Your task to perform on an android device: toggle airplane mode Image 0: 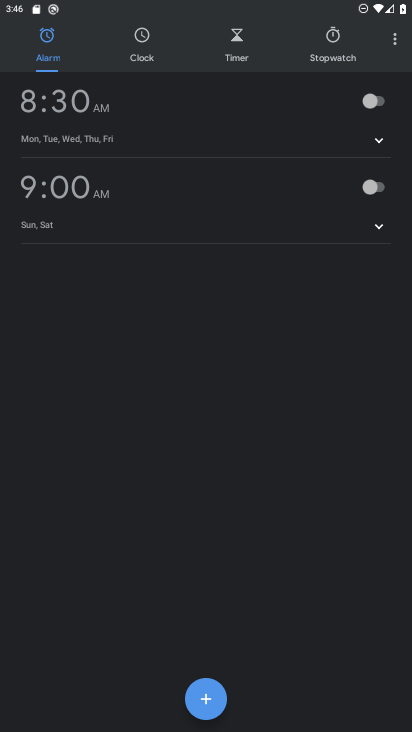
Step 0: press home button
Your task to perform on an android device: toggle airplane mode Image 1: 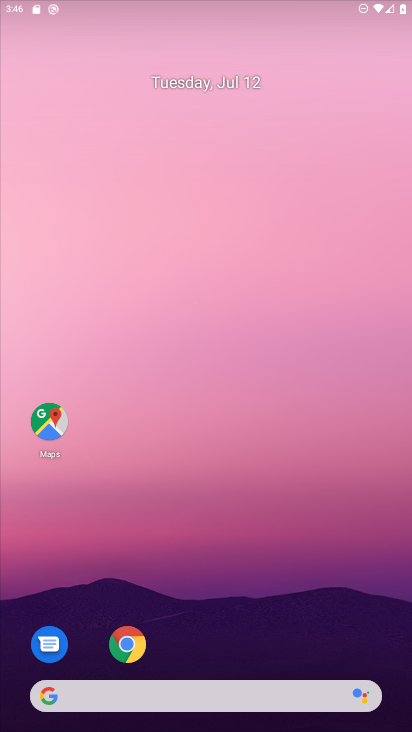
Step 1: drag from (276, 548) to (159, 47)
Your task to perform on an android device: toggle airplane mode Image 2: 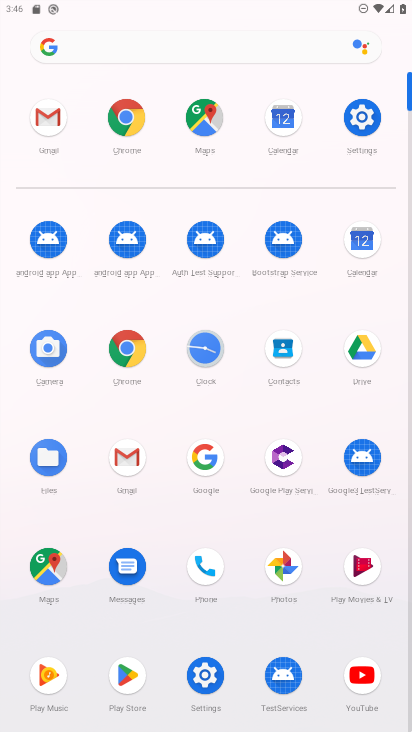
Step 2: click (368, 116)
Your task to perform on an android device: toggle airplane mode Image 3: 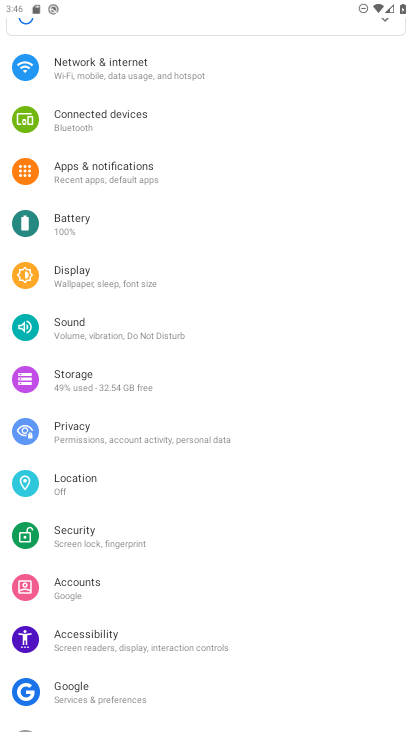
Step 3: click (111, 78)
Your task to perform on an android device: toggle airplane mode Image 4: 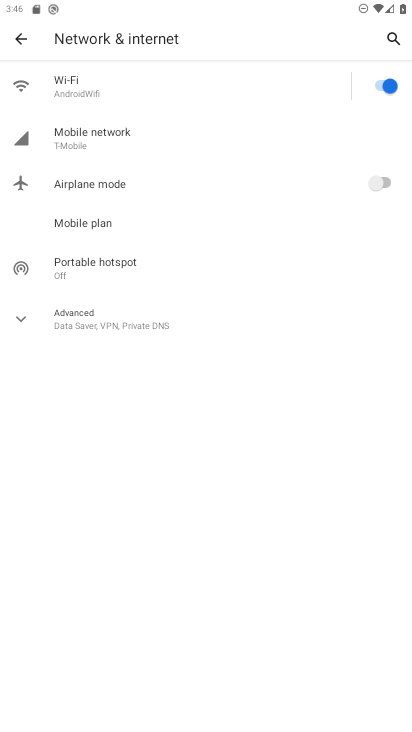
Step 4: click (381, 184)
Your task to perform on an android device: toggle airplane mode Image 5: 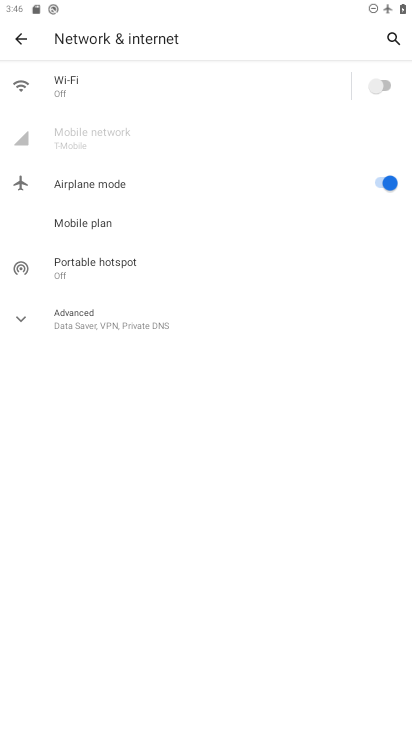
Step 5: task complete